Your task to perform on an android device: Open Google Maps Image 0: 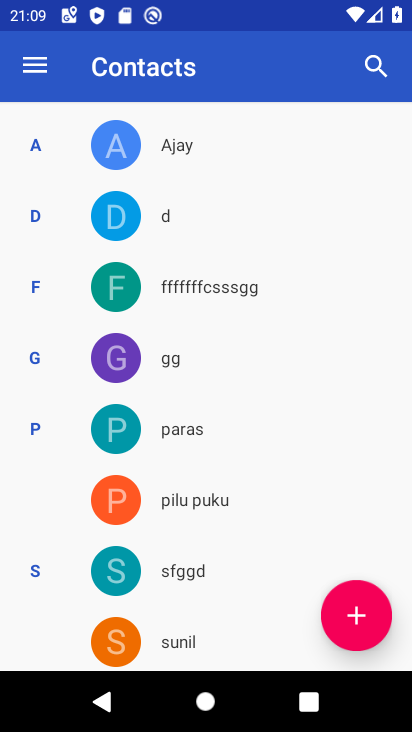
Step 0: press home button
Your task to perform on an android device: Open Google Maps Image 1: 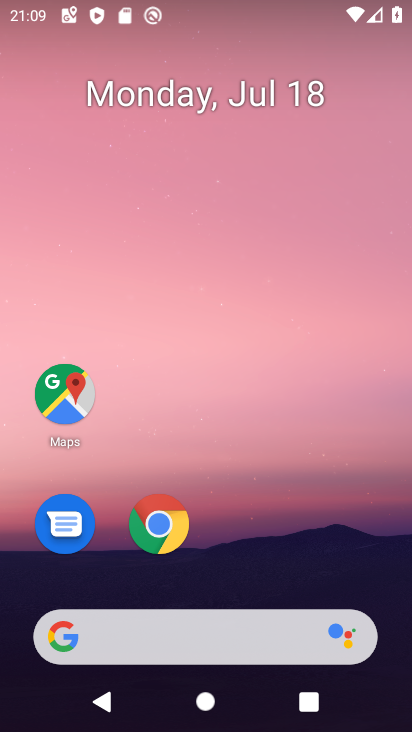
Step 1: click (76, 402)
Your task to perform on an android device: Open Google Maps Image 2: 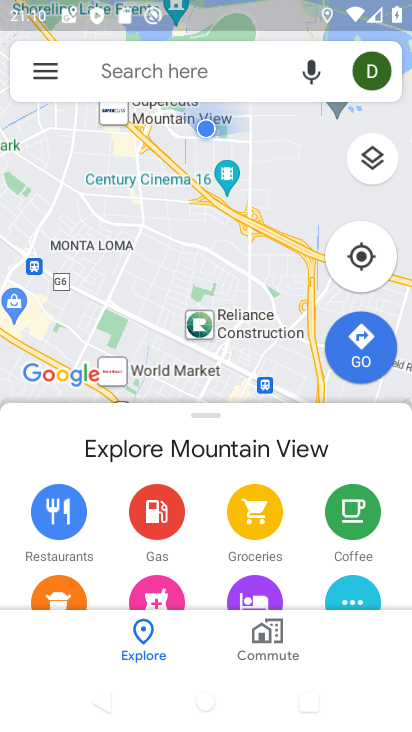
Step 2: task complete